Your task to perform on an android device: Open my contact list Image 0: 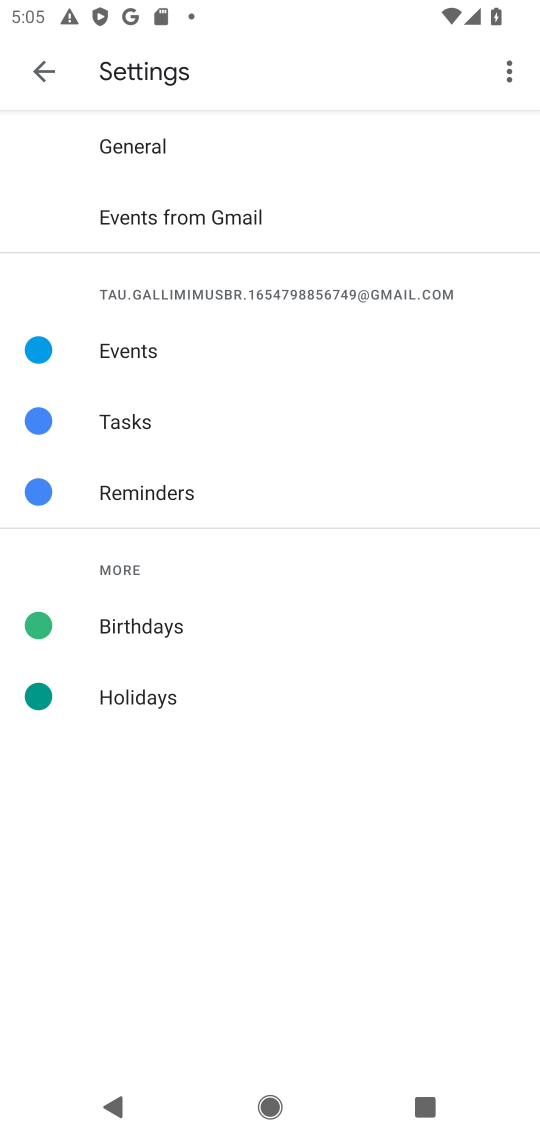
Step 0: press home button
Your task to perform on an android device: Open my contact list Image 1: 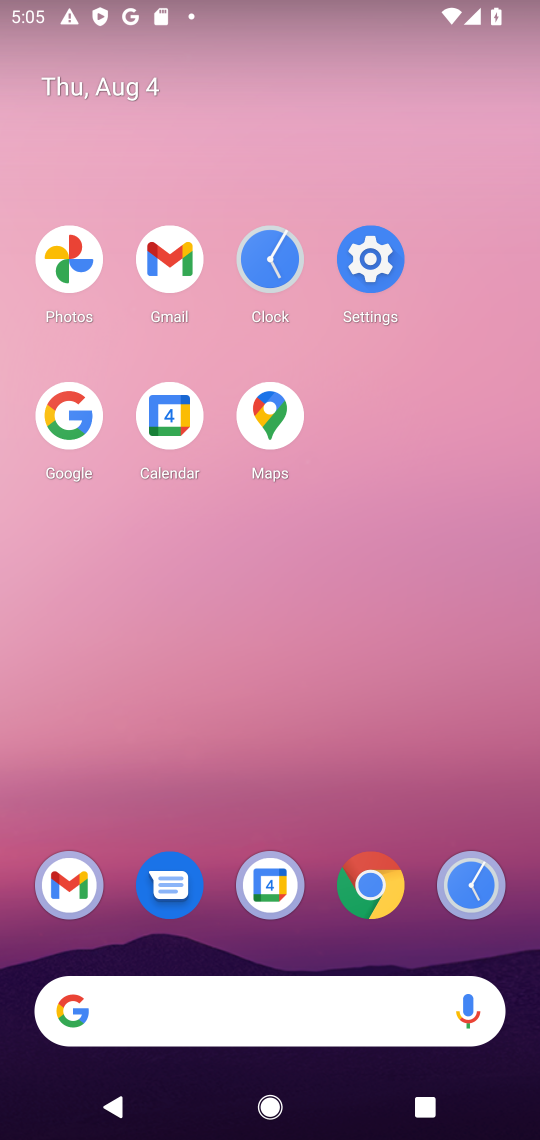
Step 1: drag from (357, 778) to (334, 273)
Your task to perform on an android device: Open my contact list Image 2: 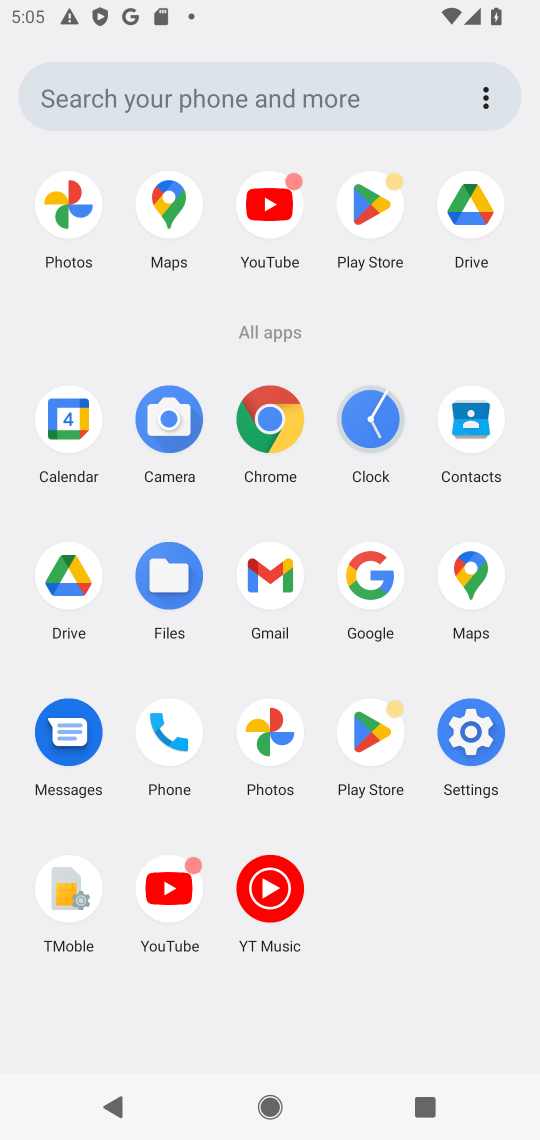
Step 2: click (482, 411)
Your task to perform on an android device: Open my contact list Image 3: 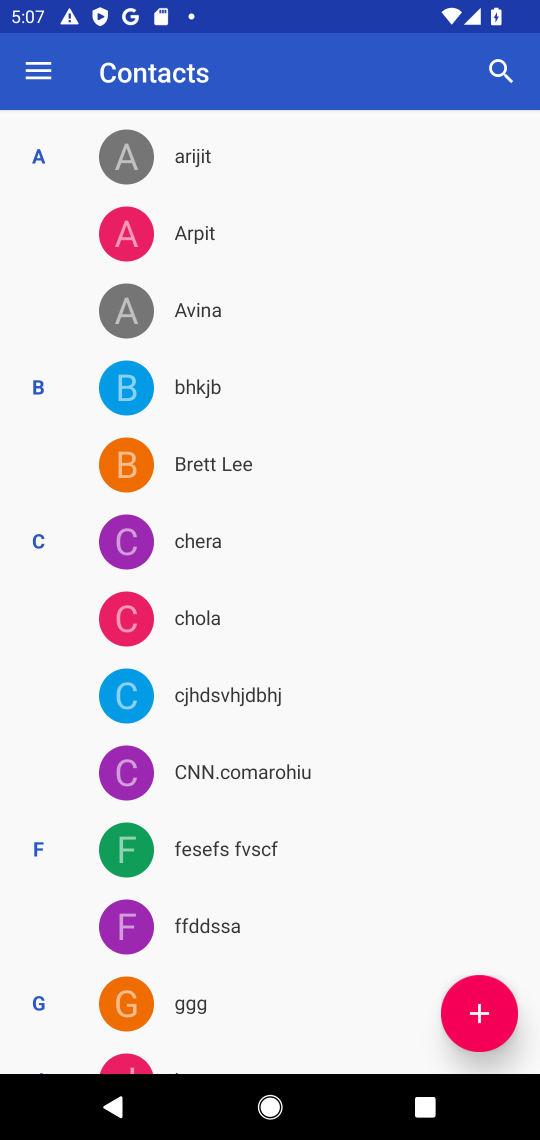
Step 3: task complete